Your task to perform on an android device: toggle notifications settings in the gmail app Image 0: 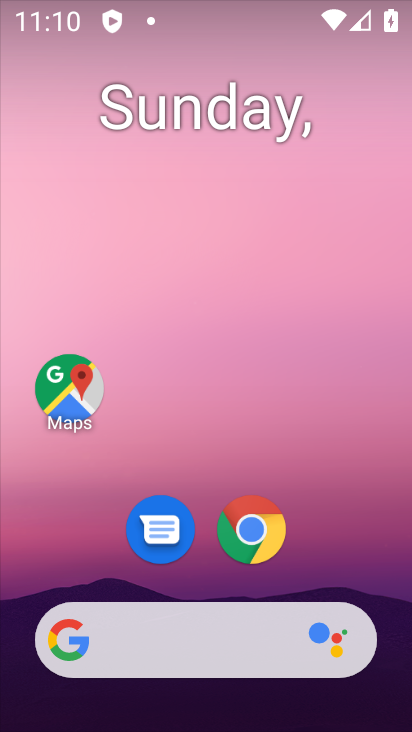
Step 0: drag from (392, 636) to (319, 76)
Your task to perform on an android device: toggle notifications settings in the gmail app Image 1: 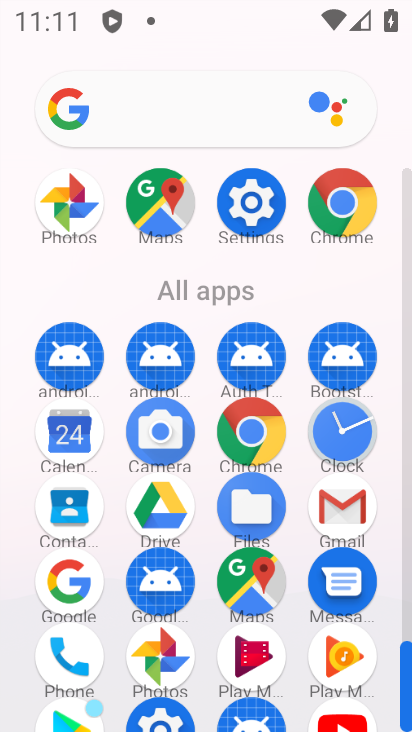
Step 1: click (341, 501)
Your task to perform on an android device: toggle notifications settings in the gmail app Image 2: 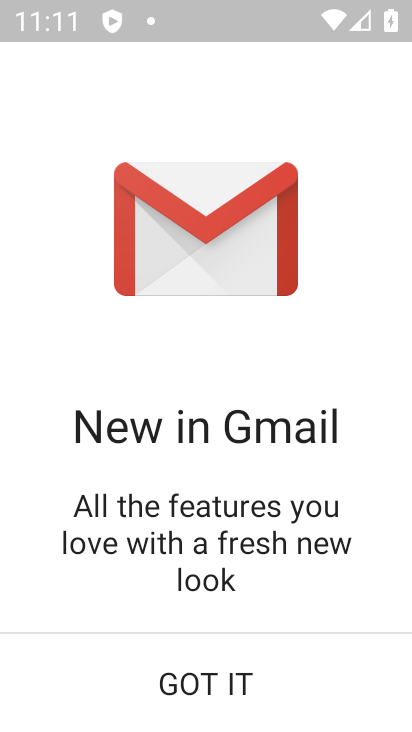
Step 2: click (219, 678)
Your task to perform on an android device: toggle notifications settings in the gmail app Image 3: 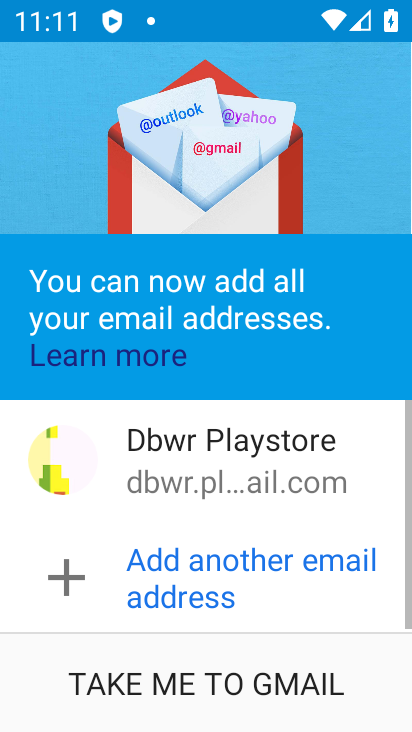
Step 3: click (219, 678)
Your task to perform on an android device: toggle notifications settings in the gmail app Image 4: 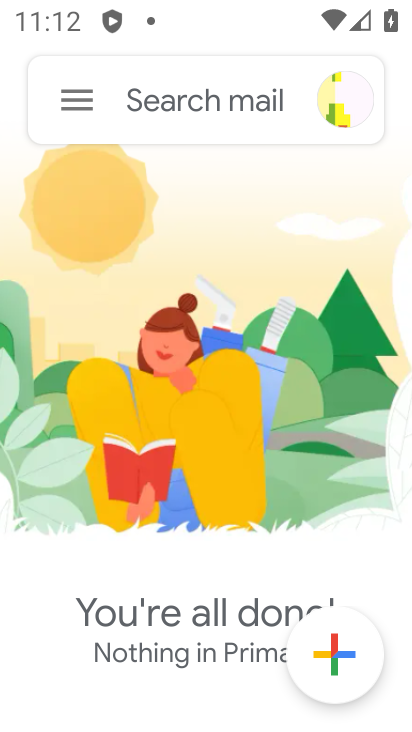
Step 4: click (51, 100)
Your task to perform on an android device: toggle notifications settings in the gmail app Image 5: 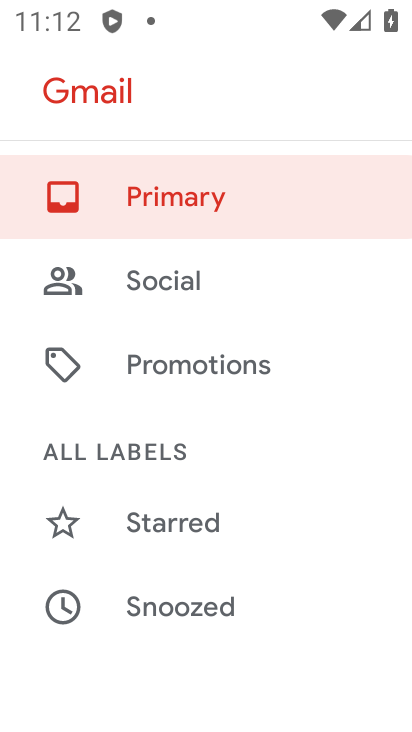
Step 5: drag from (154, 604) to (112, 50)
Your task to perform on an android device: toggle notifications settings in the gmail app Image 6: 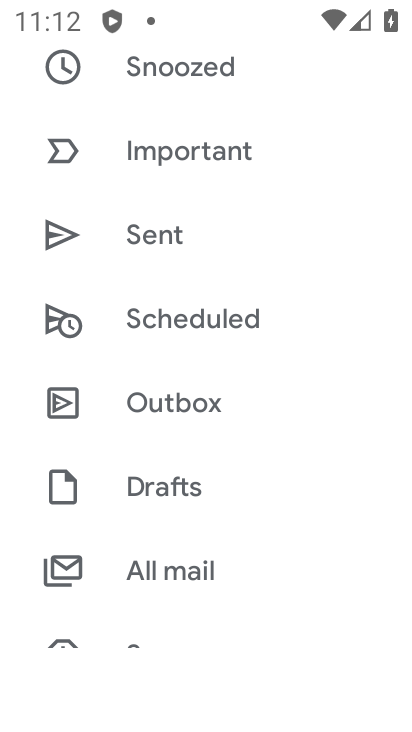
Step 6: drag from (208, 652) to (187, 135)
Your task to perform on an android device: toggle notifications settings in the gmail app Image 7: 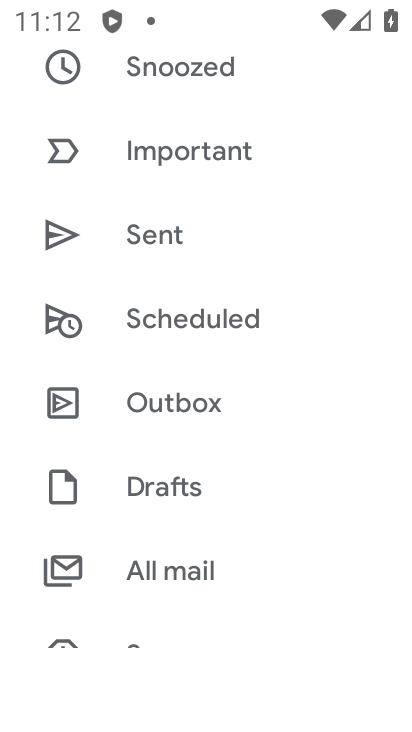
Step 7: drag from (188, 563) to (248, 168)
Your task to perform on an android device: toggle notifications settings in the gmail app Image 8: 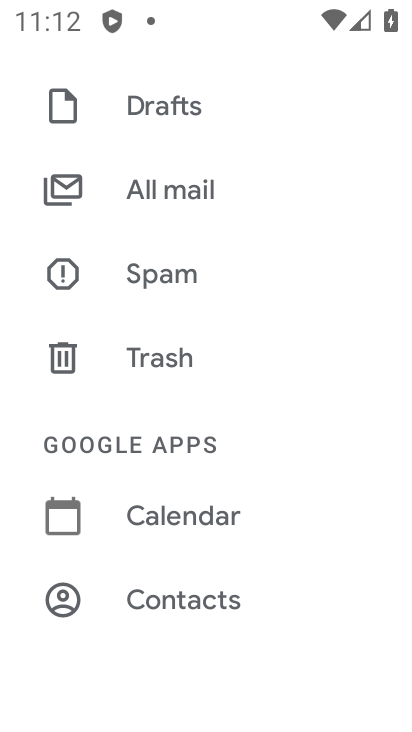
Step 8: drag from (143, 595) to (145, 158)
Your task to perform on an android device: toggle notifications settings in the gmail app Image 9: 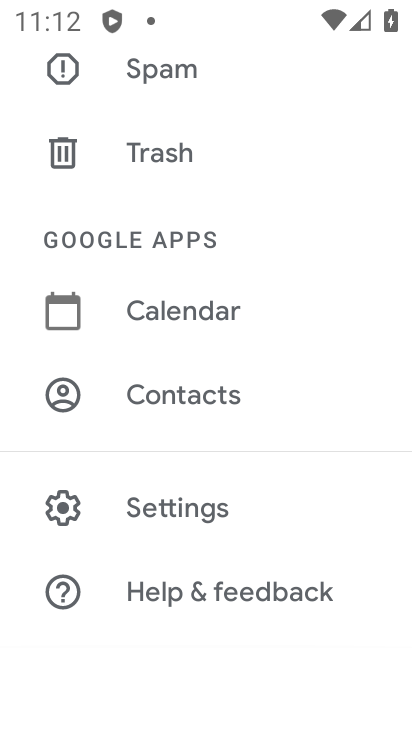
Step 9: click (192, 498)
Your task to perform on an android device: toggle notifications settings in the gmail app Image 10: 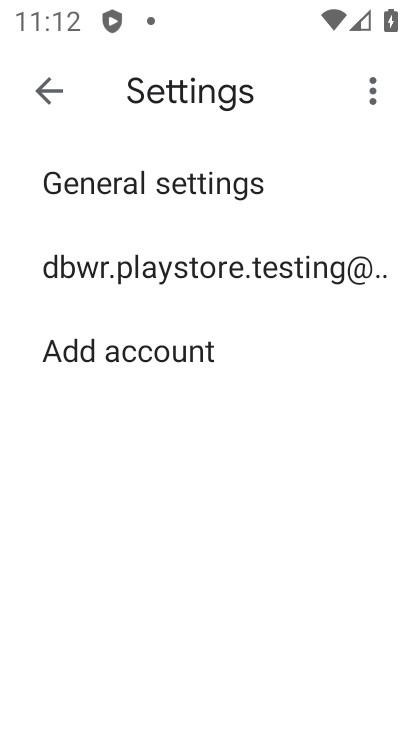
Step 10: click (172, 284)
Your task to perform on an android device: toggle notifications settings in the gmail app Image 11: 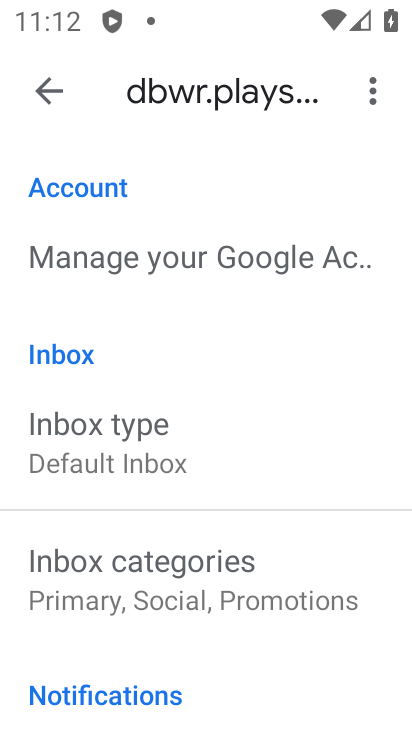
Step 11: drag from (169, 608) to (140, 222)
Your task to perform on an android device: toggle notifications settings in the gmail app Image 12: 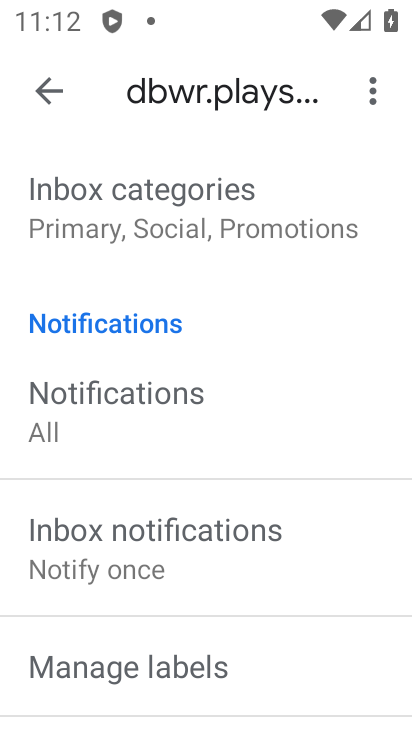
Step 12: click (160, 430)
Your task to perform on an android device: toggle notifications settings in the gmail app Image 13: 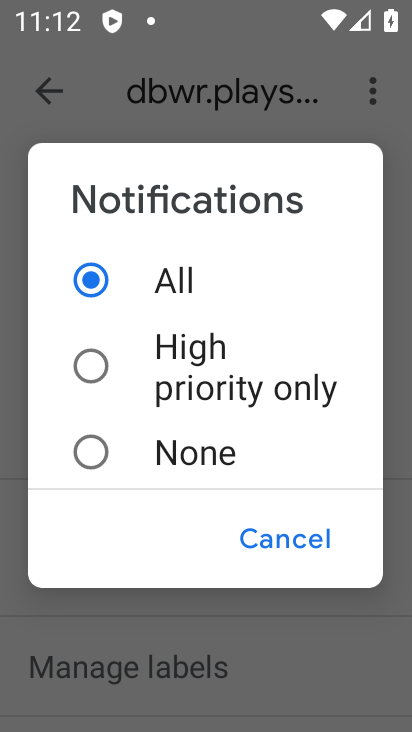
Step 13: click (161, 345)
Your task to perform on an android device: toggle notifications settings in the gmail app Image 14: 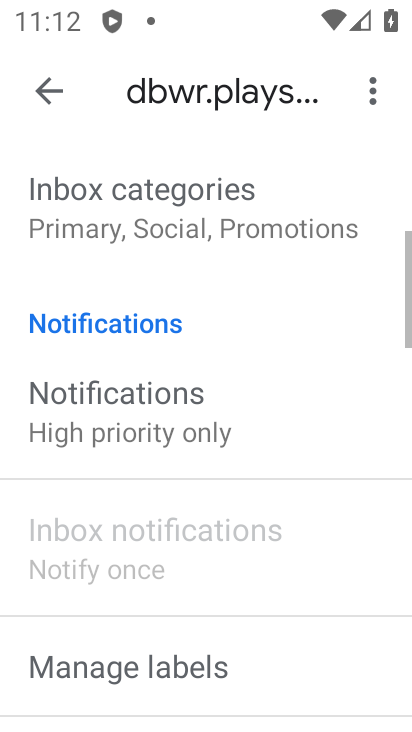
Step 14: task complete